Your task to perform on an android device: See recent photos Image 0: 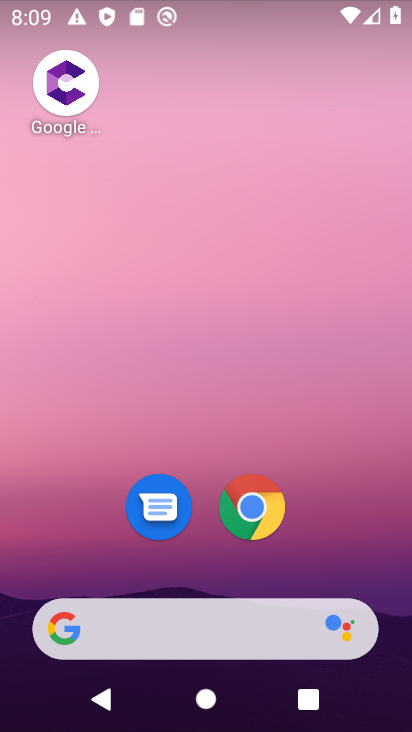
Step 0: drag from (207, 636) to (365, 78)
Your task to perform on an android device: See recent photos Image 1: 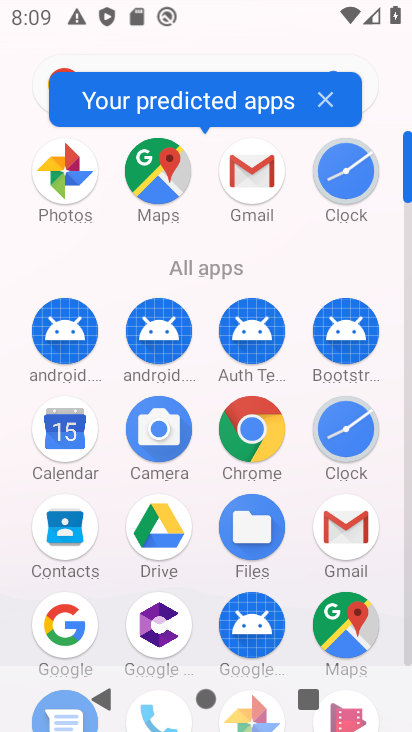
Step 1: click (59, 165)
Your task to perform on an android device: See recent photos Image 2: 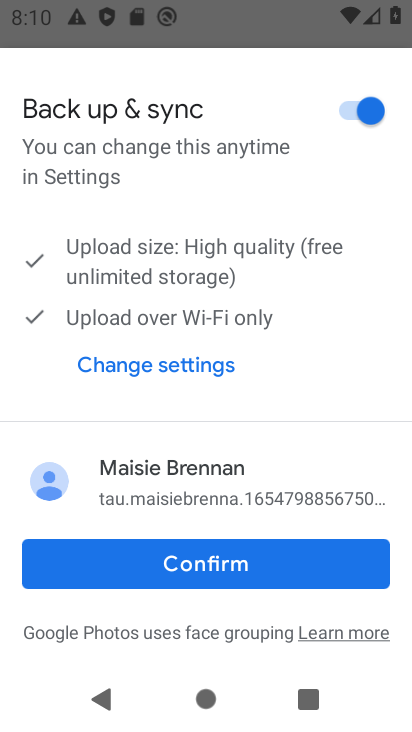
Step 2: click (211, 570)
Your task to perform on an android device: See recent photos Image 3: 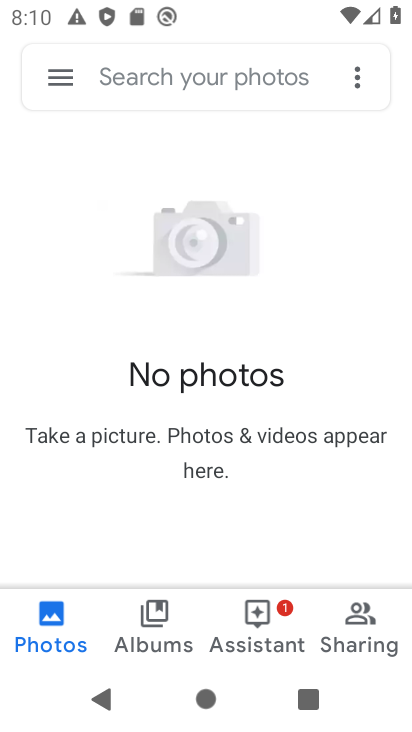
Step 3: click (151, 622)
Your task to perform on an android device: See recent photos Image 4: 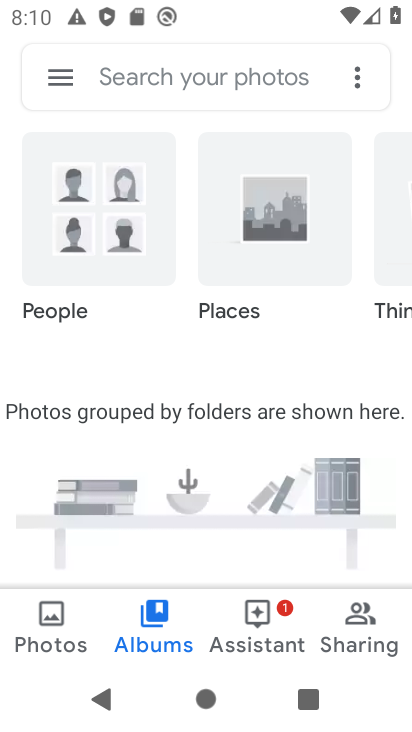
Step 4: task complete